Your task to perform on an android device: Open wifi settings Image 0: 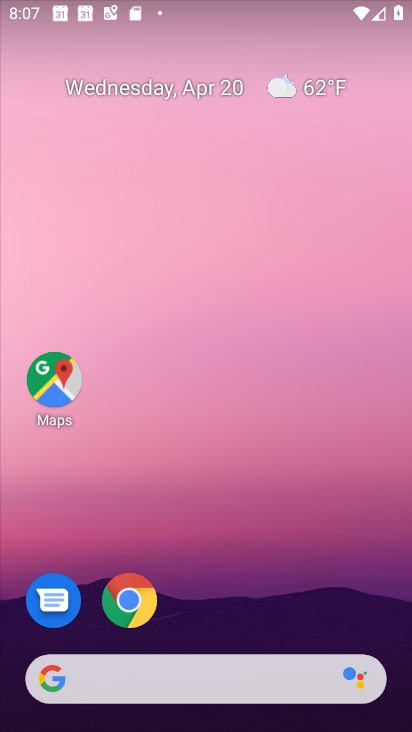
Step 0: drag from (210, 581) to (194, 147)
Your task to perform on an android device: Open wifi settings Image 1: 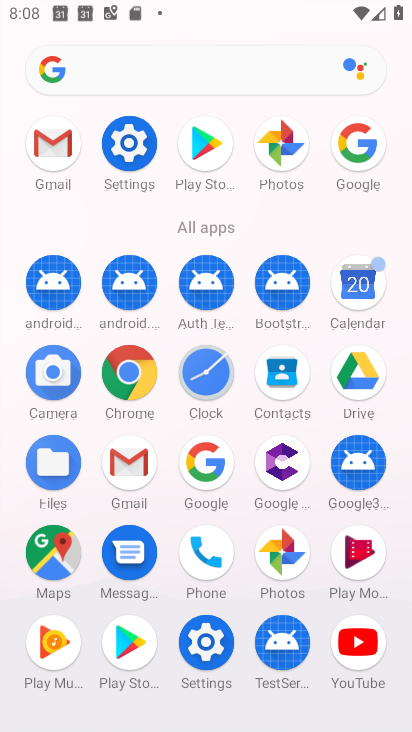
Step 1: click (133, 142)
Your task to perform on an android device: Open wifi settings Image 2: 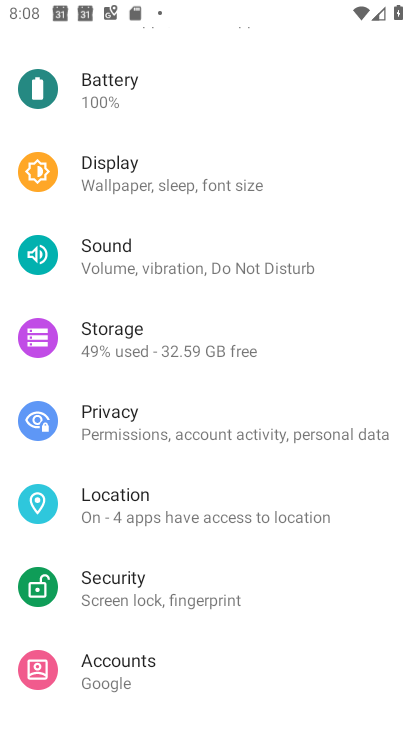
Step 2: drag from (200, 179) to (198, 413)
Your task to perform on an android device: Open wifi settings Image 3: 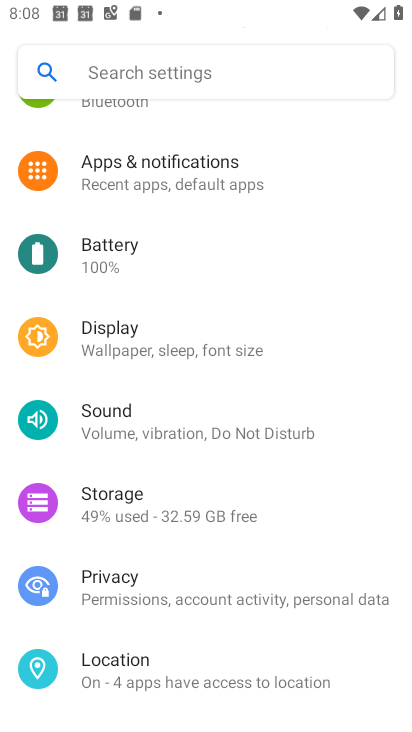
Step 3: drag from (247, 270) to (255, 506)
Your task to perform on an android device: Open wifi settings Image 4: 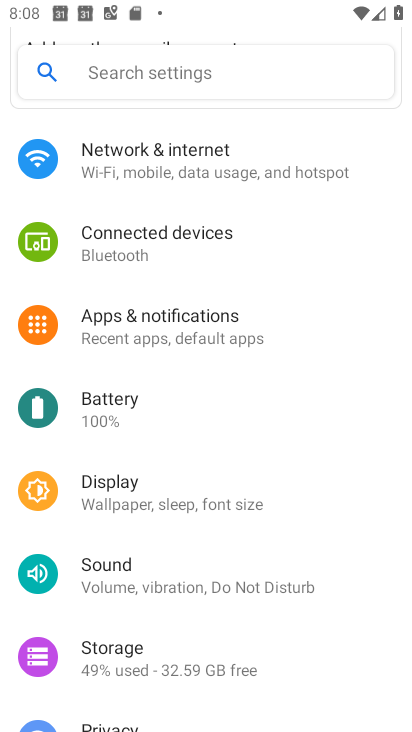
Step 4: click (211, 156)
Your task to perform on an android device: Open wifi settings Image 5: 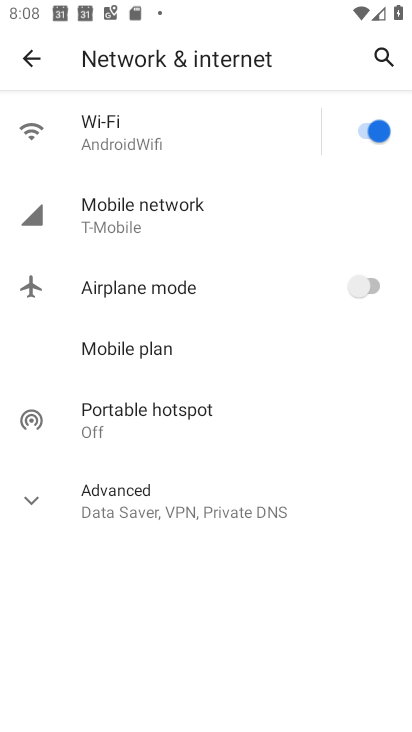
Step 5: click (218, 111)
Your task to perform on an android device: Open wifi settings Image 6: 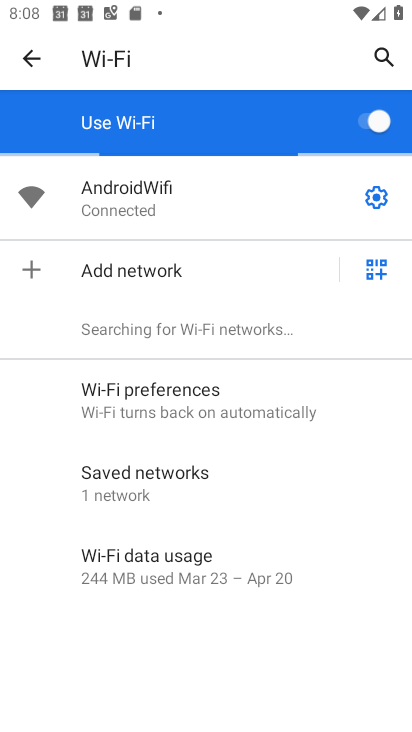
Step 6: task complete